Your task to perform on an android device: search for starred emails in the gmail app Image 0: 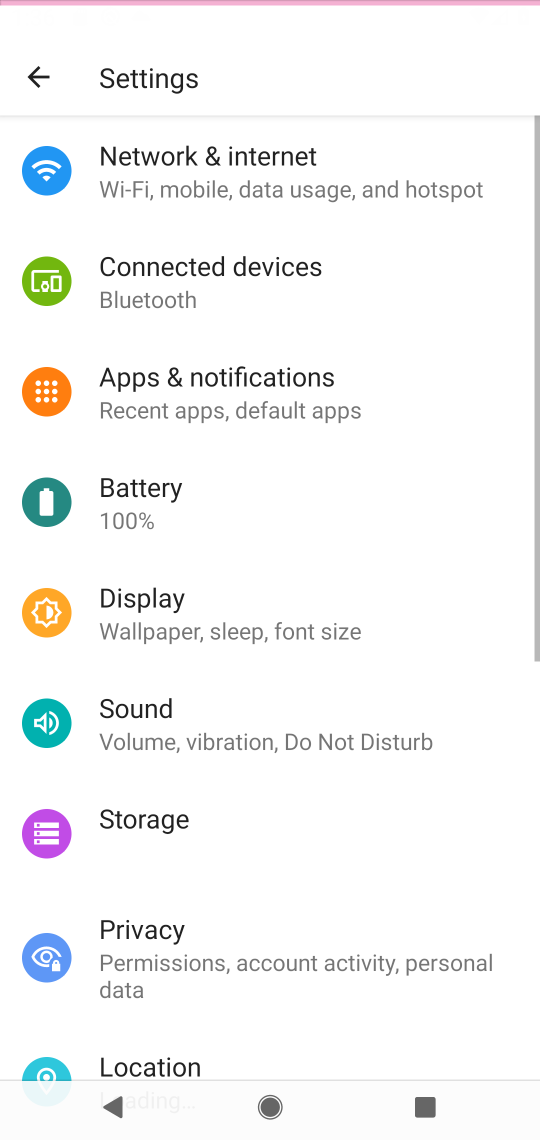
Step 0: press home button
Your task to perform on an android device: search for starred emails in the gmail app Image 1: 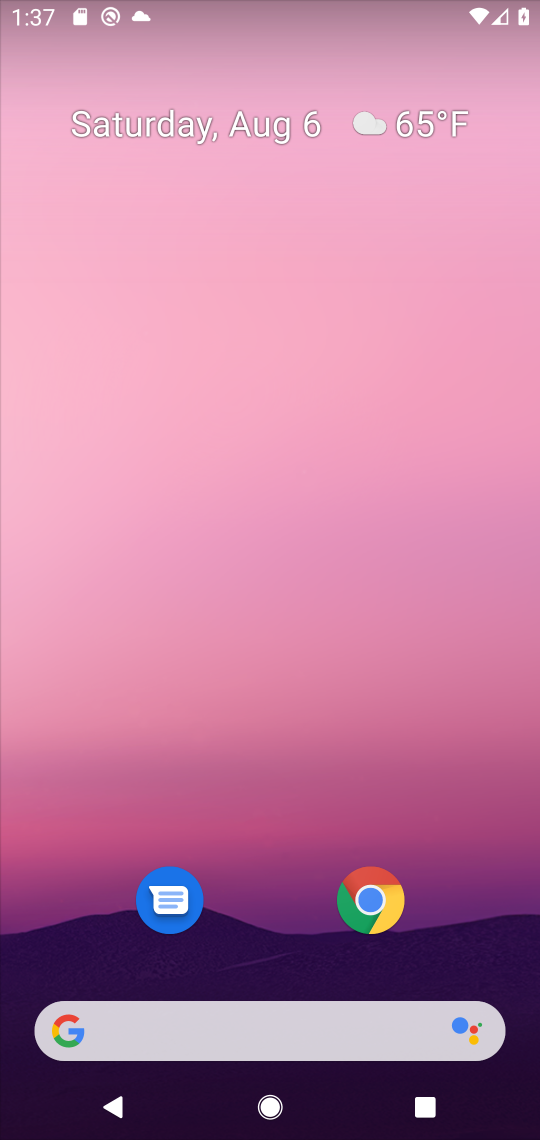
Step 1: press home button
Your task to perform on an android device: search for starred emails in the gmail app Image 2: 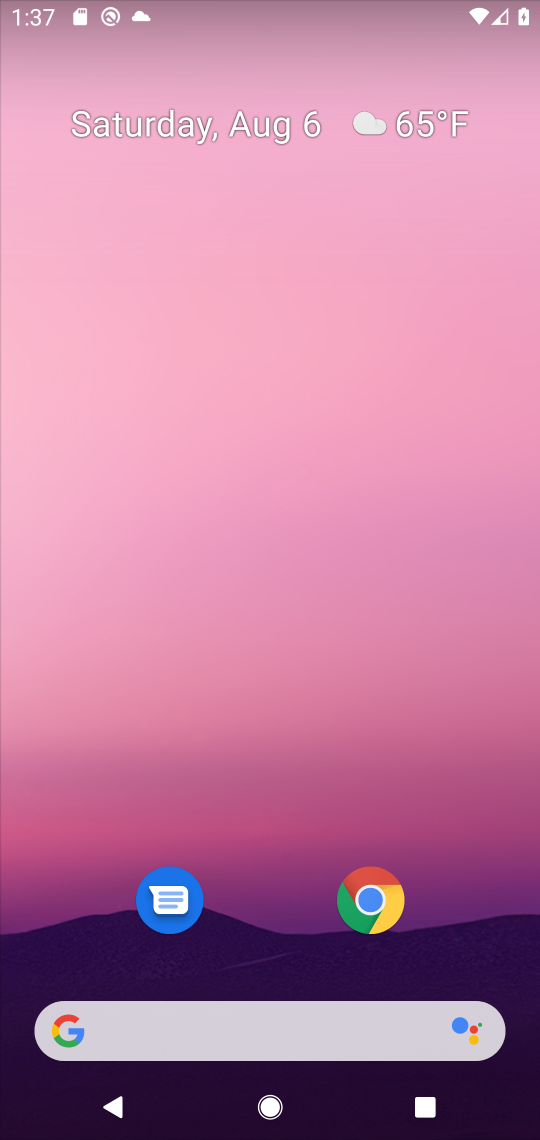
Step 2: drag from (254, 871) to (506, 359)
Your task to perform on an android device: search for starred emails in the gmail app Image 3: 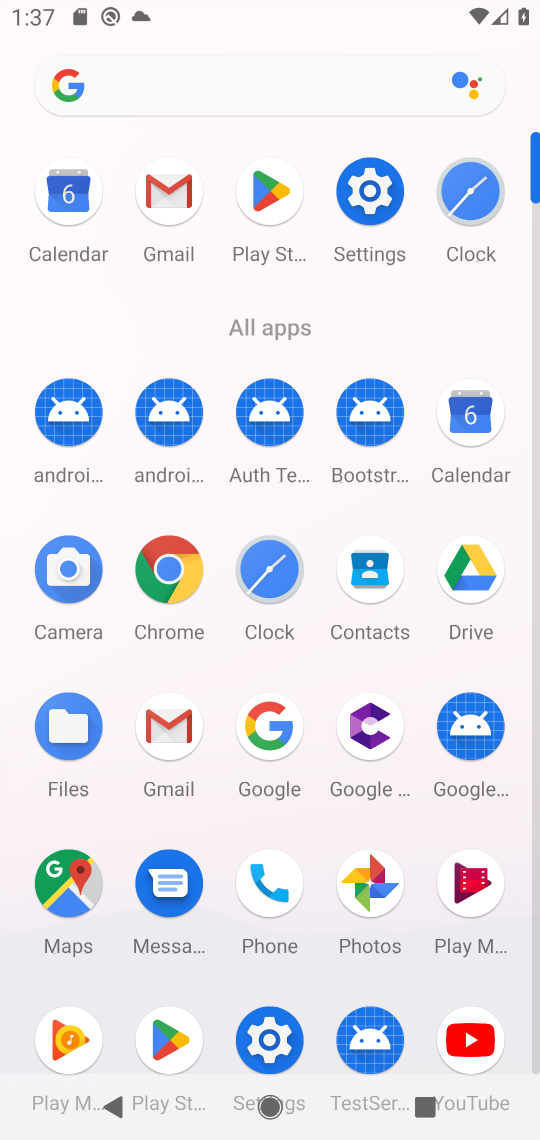
Step 3: click (174, 182)
Your task to perform on an android device: search for starred emails in the gmail app Image 4: 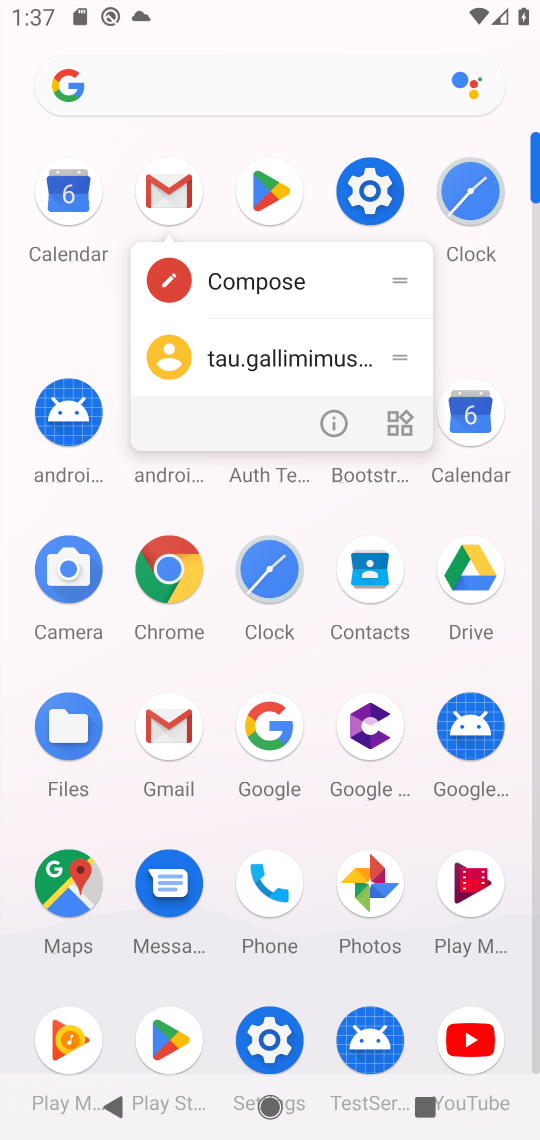
Step 4: click (149, 177)
Your task to perform on an android device: search for starred emails in the gmail app Image 5: 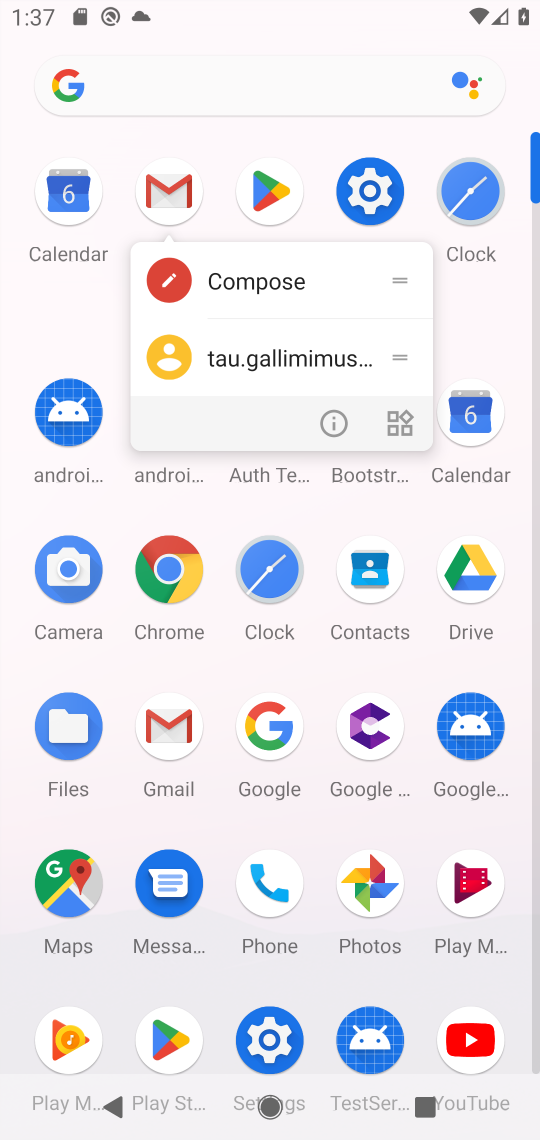
Step 5: click (153, 192)
Your task to perform on an android device: search for starred emails in the gmail app Image 6: 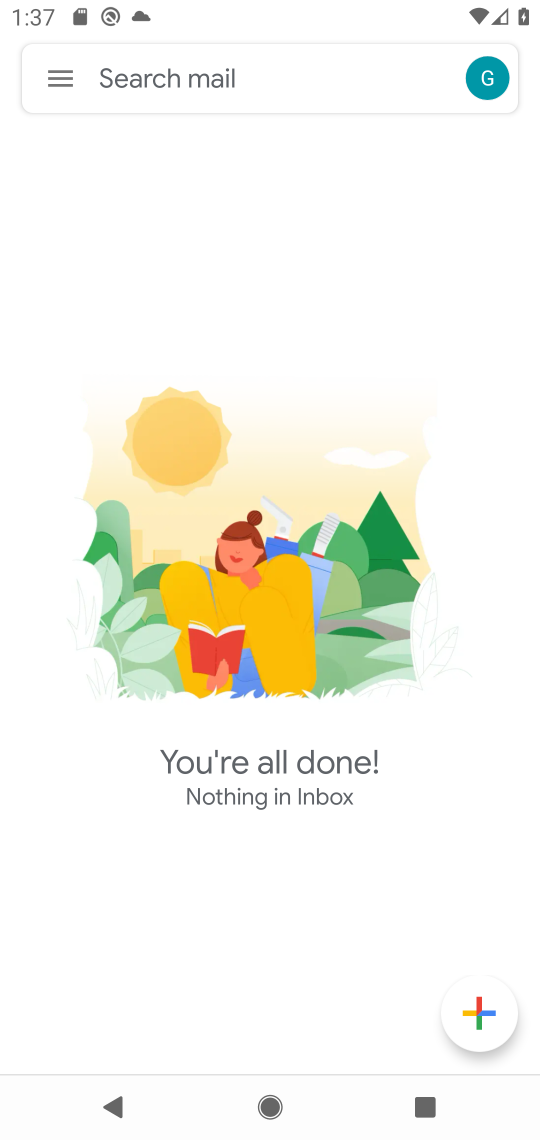
Step 6: task complete